Your task to perform on an android device: Search for Mexican restaurants on Maps Image 0: 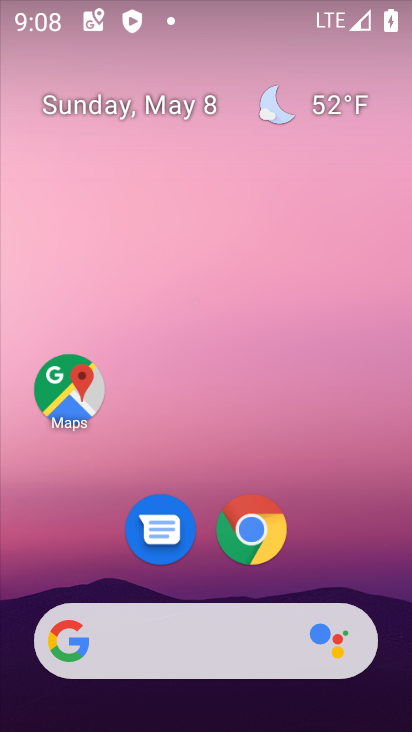
Step 0: drag from (351, 545) to (345, 94)
Your task to perform on an android device: Search for Mexican restaurants on Maps Image 1: 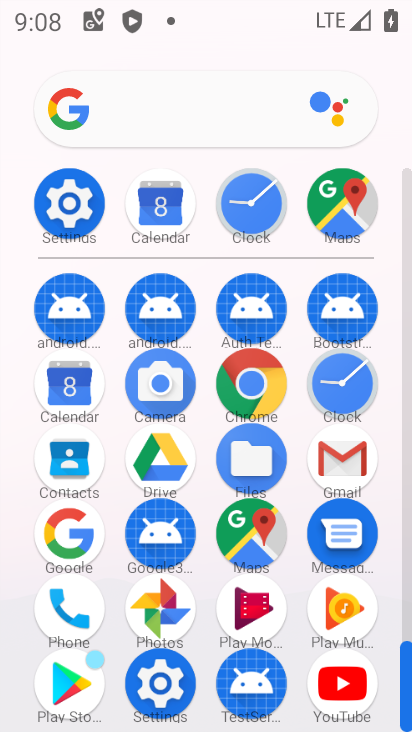
Step 1: click (234, 534)
Your task to perform on an android device: Search for Mexican restaurants on Maps Image 2: 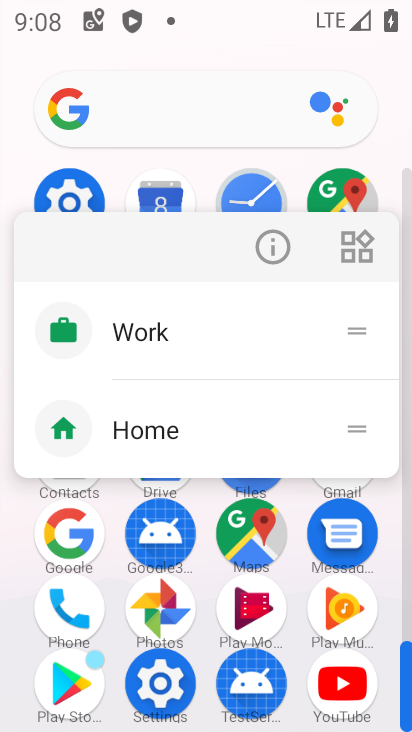
Step 2: click (241, 561)
Your task to perform on an android device: Search for Mexican restaurants on Maps Image 3: 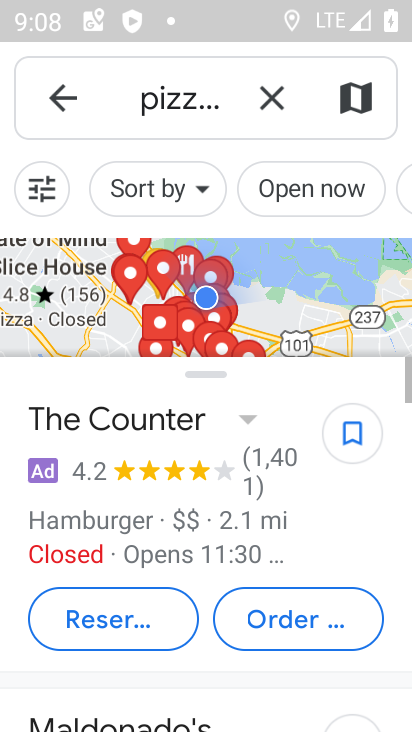
Step 3: click (275, 107)
Your task to perform on an android device: Search for Mexican restaurants on Maps Image 4: 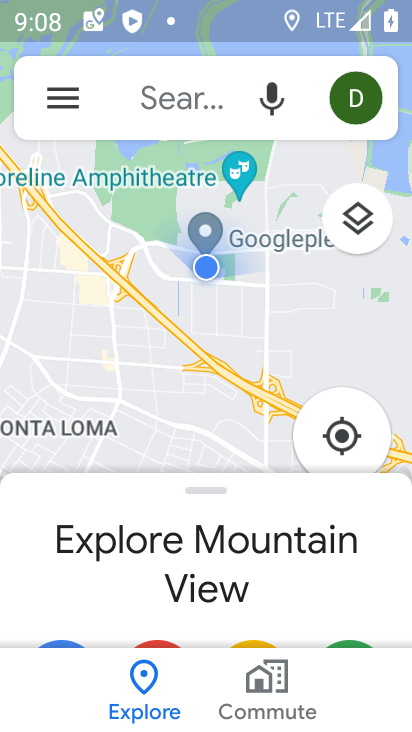
Step 4: click (223, 104)
Your task to perform on an android device: Search for Mexican restaurants on Maps Image 5: 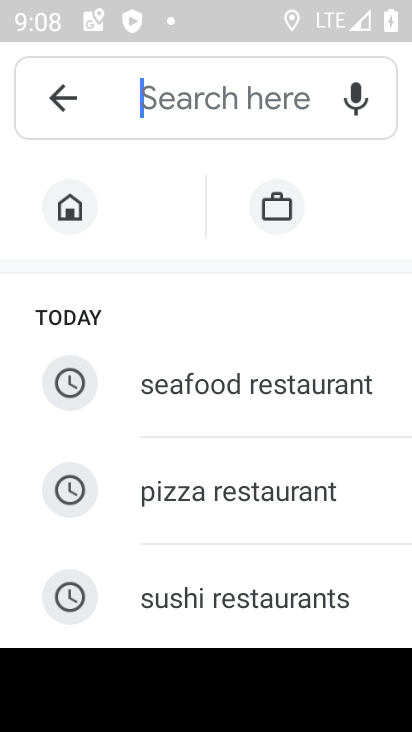
Step 5: type "mexican restaurants"
Your task to perform on an android device: Search for Mexican restaurants on Maps Image 6: 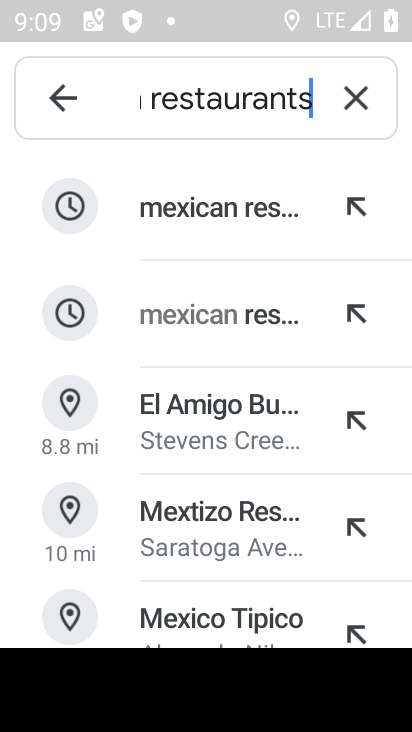
Step 6: click (189, 222)
Your task to perform on an android device: Search for Mexican restaurants on Maps Image 7: 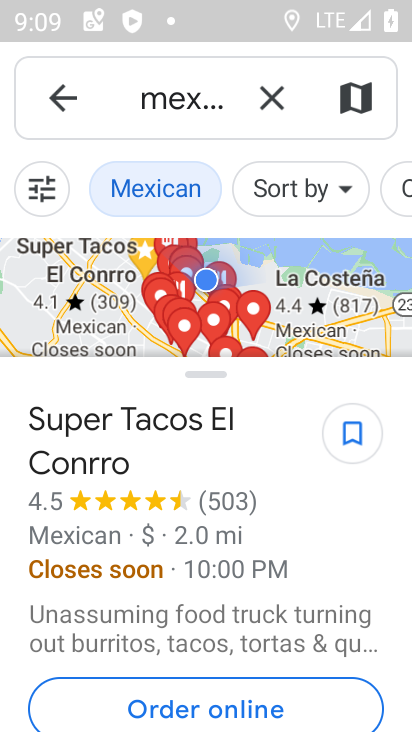
Step 7: task complete